Your task to perform on an android device: set the timer Image 0: 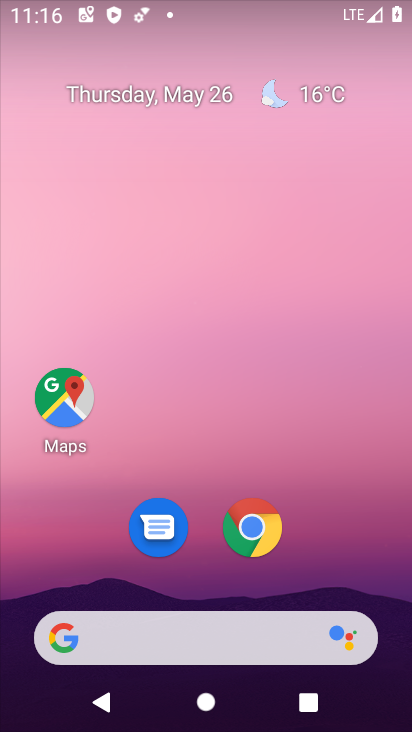
Step 0: drag from (205, 559) to (236, 42)
Your task to perform on an android device: set the timer Image 1: 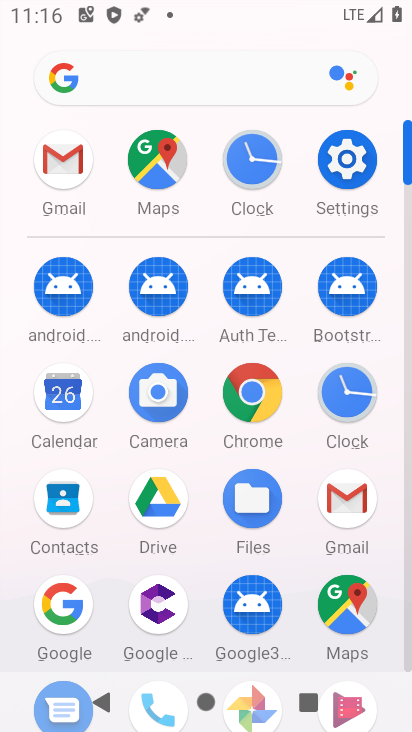
Step 1: click (347, 387)
Your task to perform on an android device: set the timer Image 2: 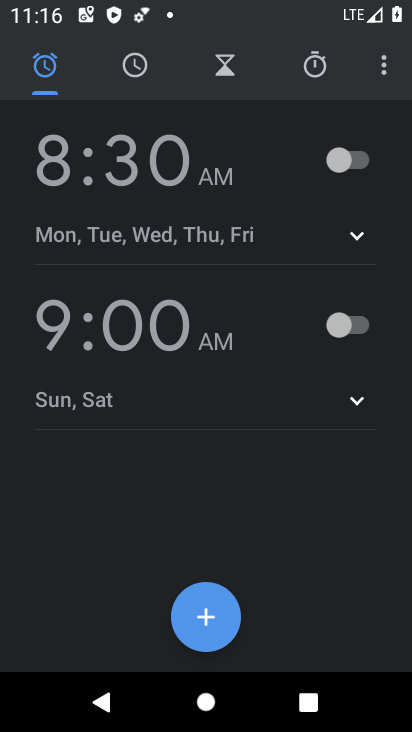
Step 2: click (205, 76)
Your task to perform on an android device: set the timer Image 3: 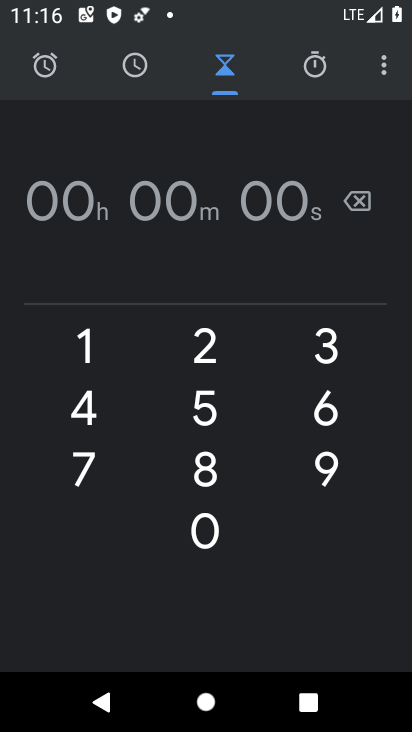
Step 3: click (219, 359)
Your task to perform on an android device: set the timer Image 4: 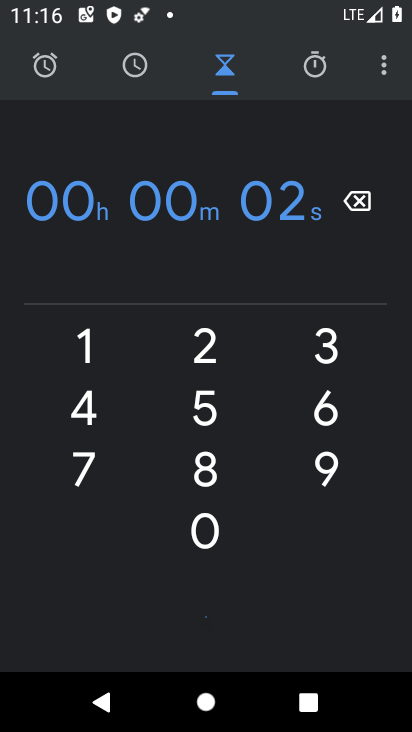
Step 4: click (219, 359)
Your task to perform on an android device: set the timer Image 5: 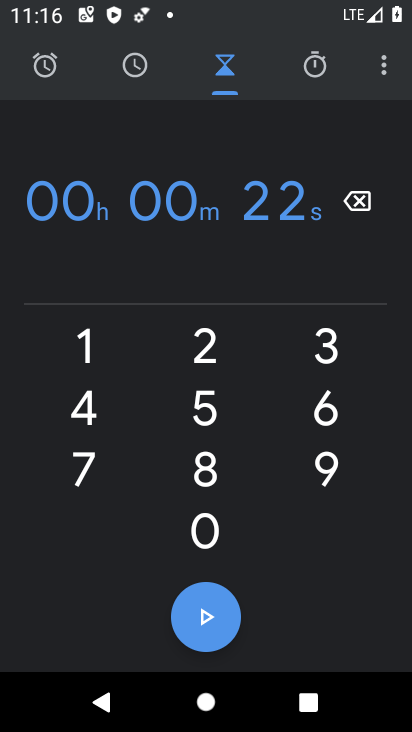
Step 5: click (219, 359)
Your task to perform on an android device: set the timer Image 6: 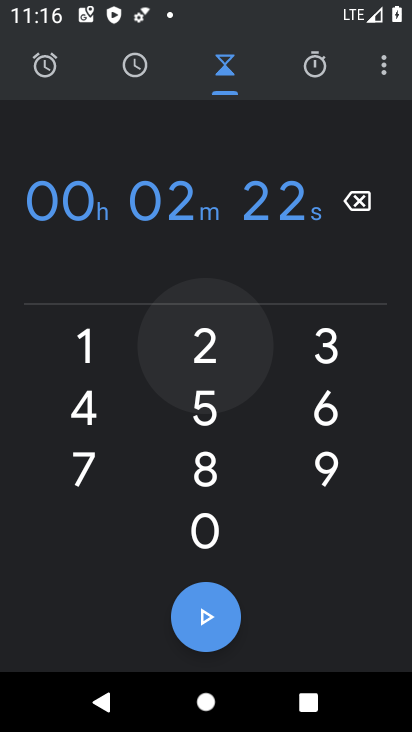
Step 6: click (219, 359)
Your task to perform on an android device: set the timer Image 7: 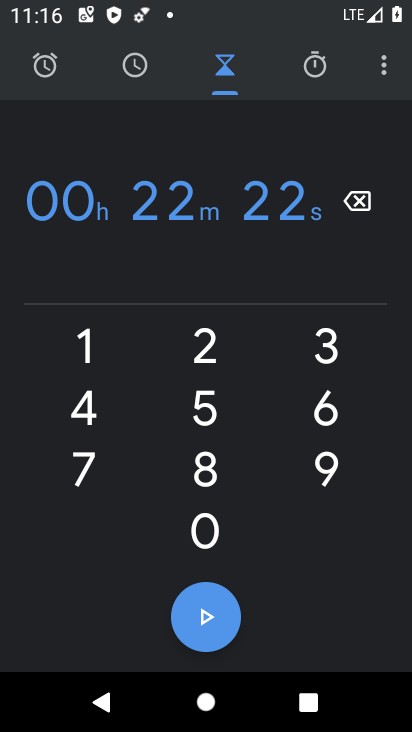
Step 7: click (219, 359)
Your task to perform on an android device: set the timer Image 8: 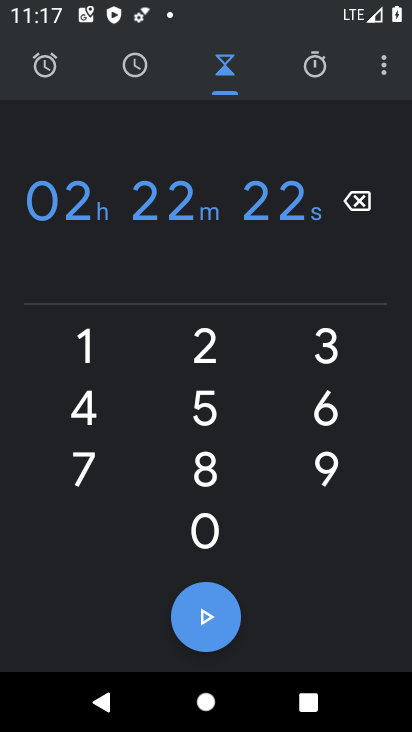
Step 8: click (219, 358)
Your task to perform on an android device: set the timer Image 9: 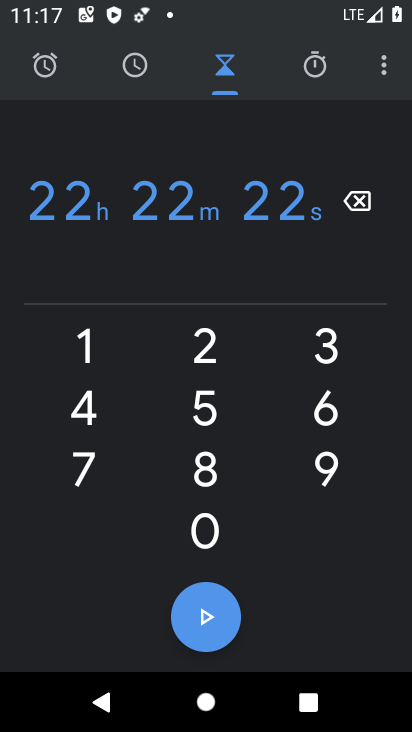
Step 9: click (219, 357)
Your task to perform on an android device: set the timer Image 10: 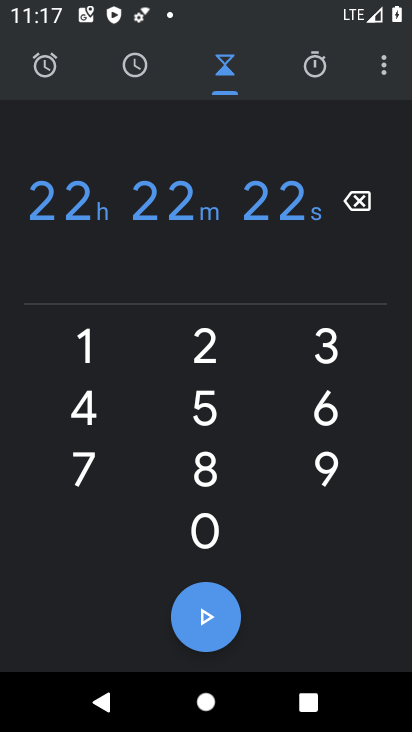
Step 10: click (211, 622)
Your task to perform on an android device: set the timer Image 11: 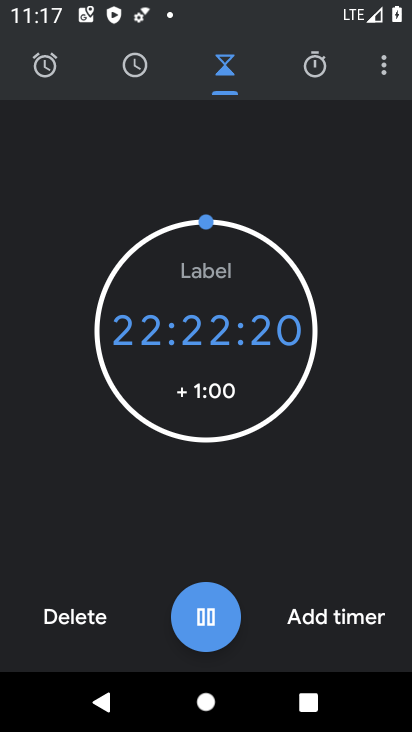
Step 11: task complete